Your task to perform on an android device: Open the calendar Image 0: 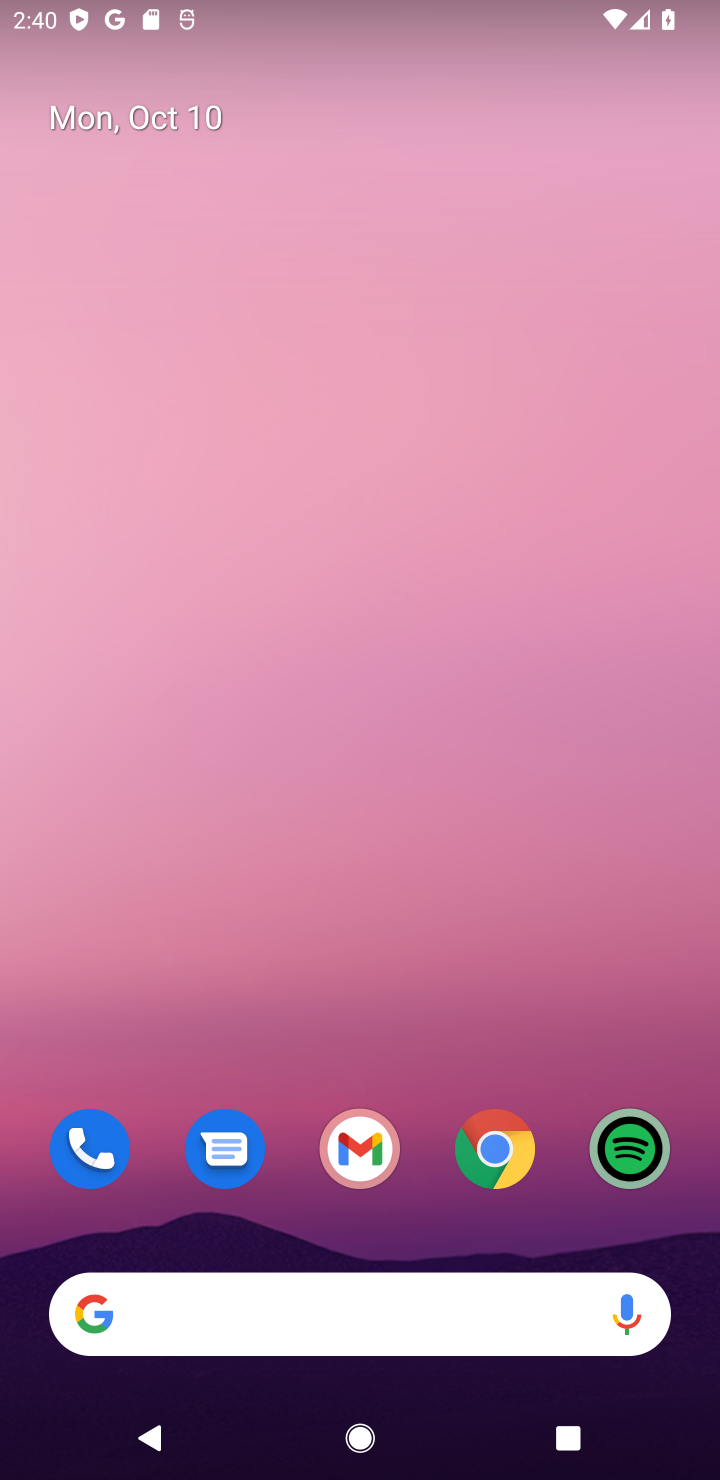
Step 0: drag from (418, 1224) to (343, 127)
Your task to perform on an android device: Open the calendar Image 1: 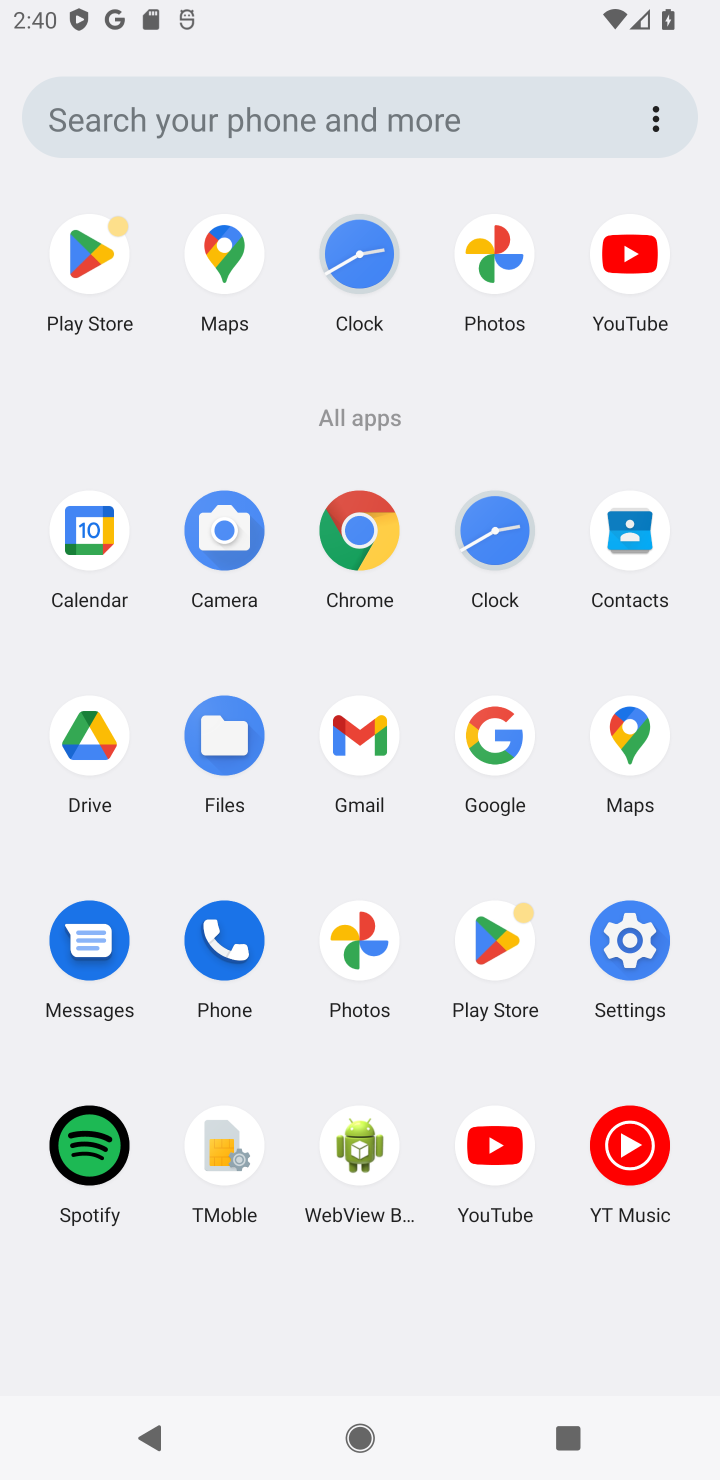
Step 1: click (53, 534)
Your task to perform on an android device: Open the calendar Image 2: 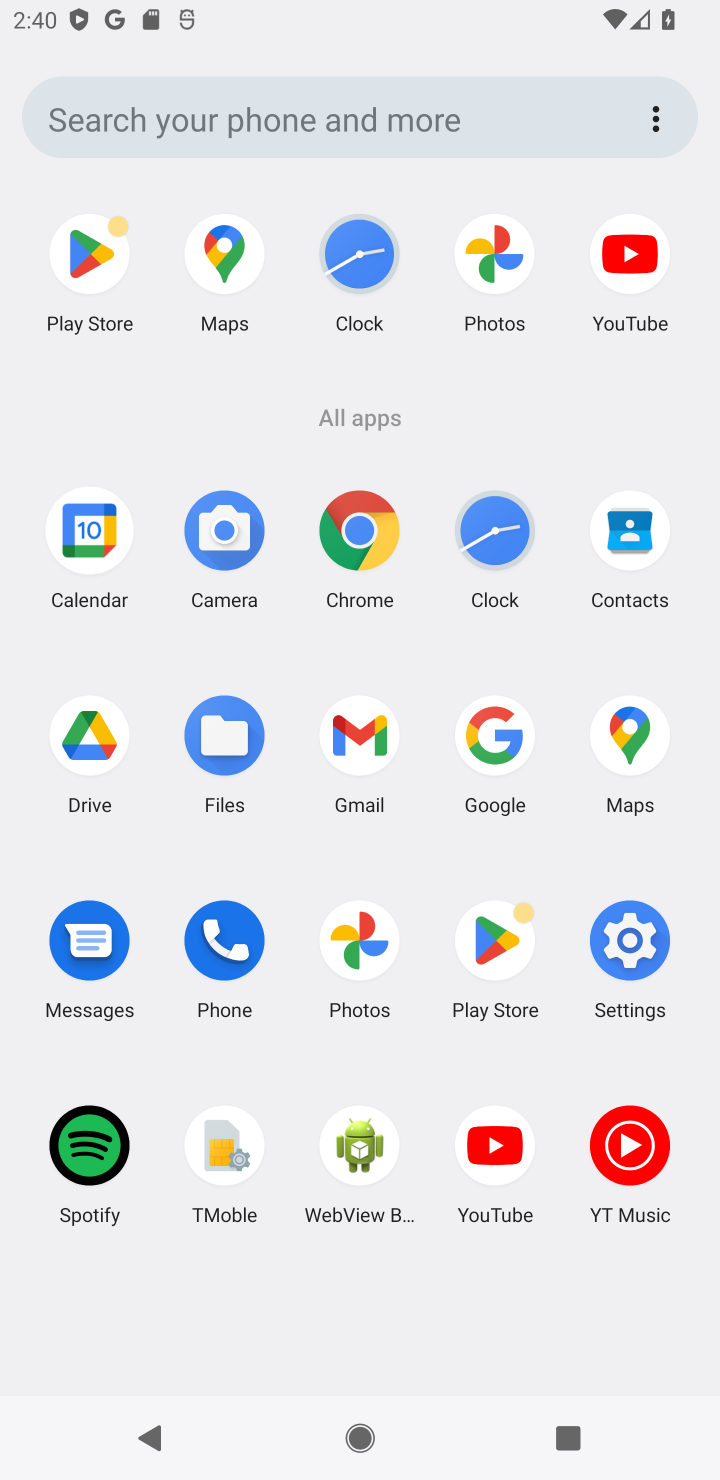
Step 2: task complete